Your task to perform on an android device: change the upload size in google photos Image 0: 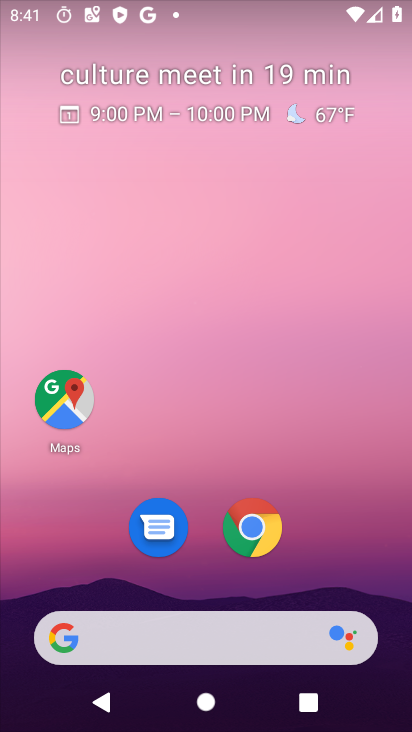
Step 0: drag from (228, 726) to (239, 175)
Your task to perform on an android device: change the upload size in google photos Image 1: 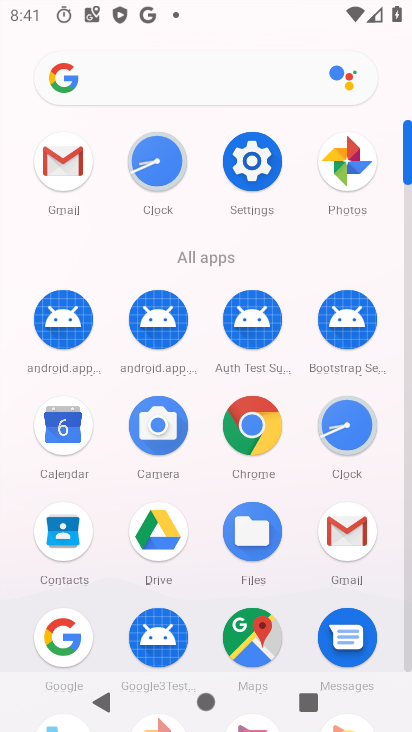
Step 1: drag from (294, 656) to (306, 337)
Your task to perform on an android device: change the upload size in google photos Image 2: 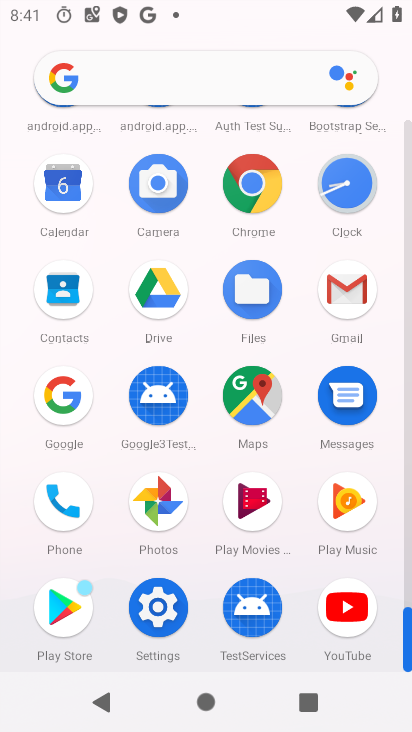
Step 2: click (154, 497)
Your task to perform on an android device: change the upload size in google photos Image 3: 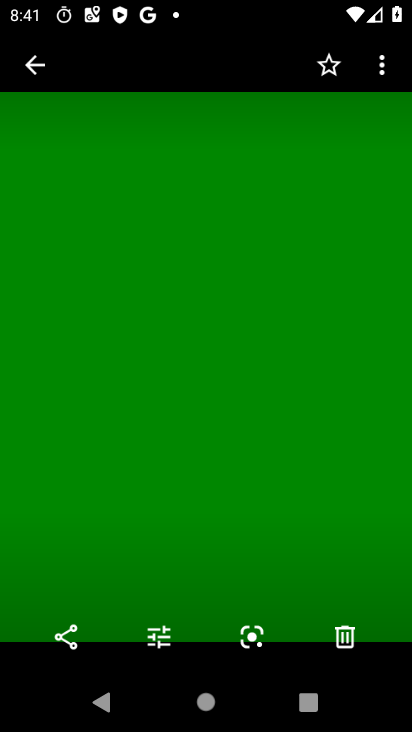
Step 3: click (43, 55)
Your task to perform on an android device: change the upload size in google photos Image 4: 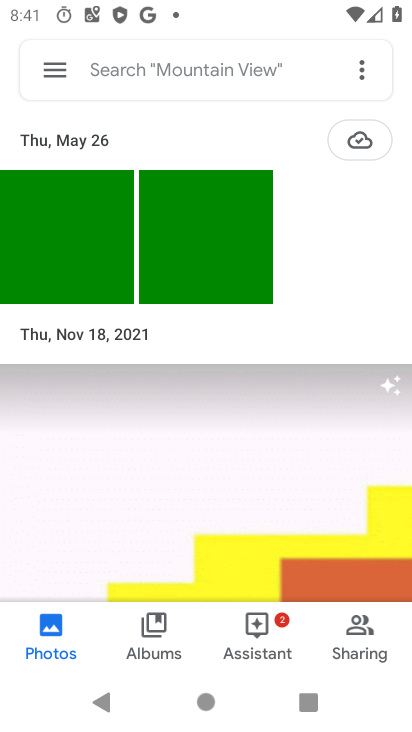
Step 4: click (57, 77)
Your task to perform on an android device: change the upload size in google photos Image 5: 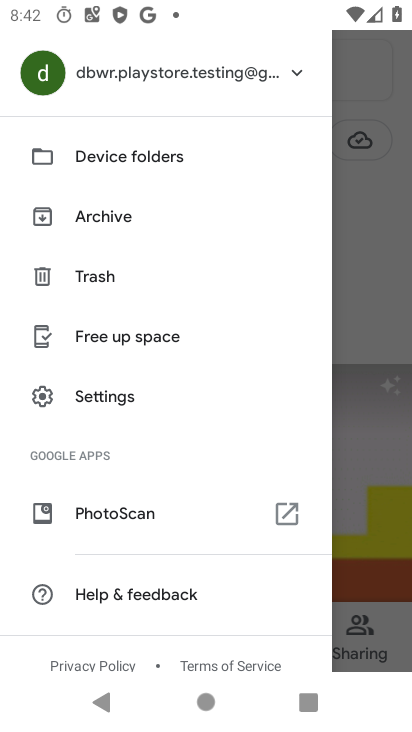
Step 5: click (113, 399)
Your task to perform on an android device: change the upload size in google photos Image 6: 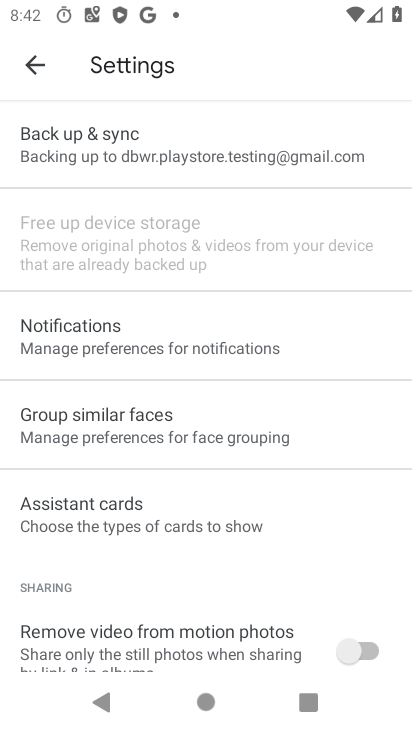
Step 6: click (104, 136)
Your task to perform on an android device: change the upload size in google photos Image 7: 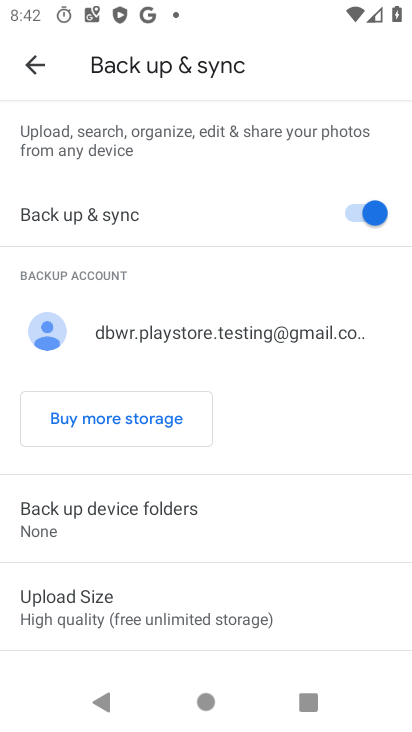
Step 7: click (110, 607)
Your task to perform on an android device: change the upload size in google photos Image 8: 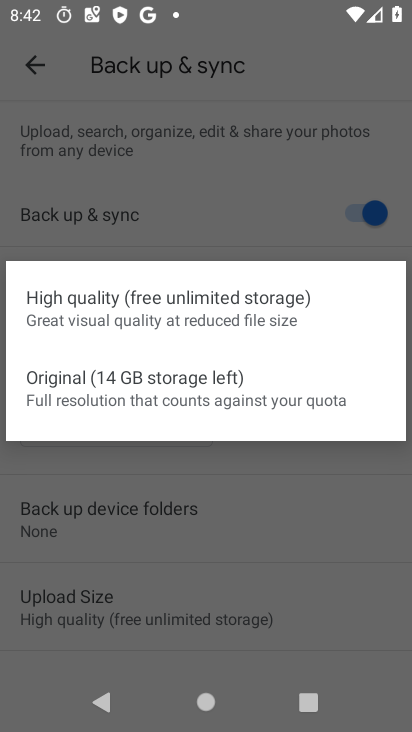
Step 8: click (133, 393)
Your task to perform on an android device: change the upload size in google photos Image 9: 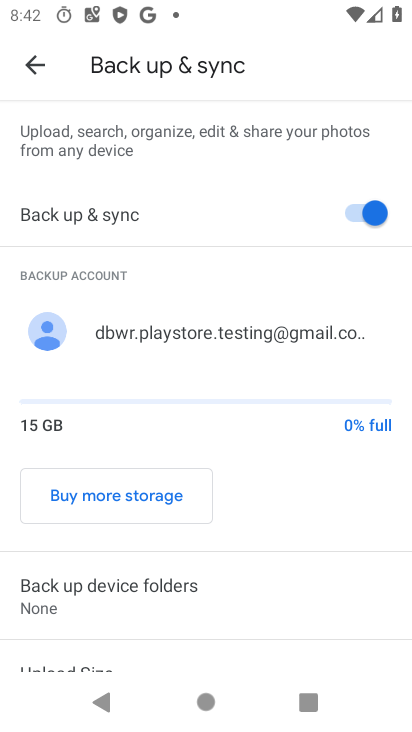
Step 9: task complete